Your task to perform on an android device: Open notification settings Image 0: 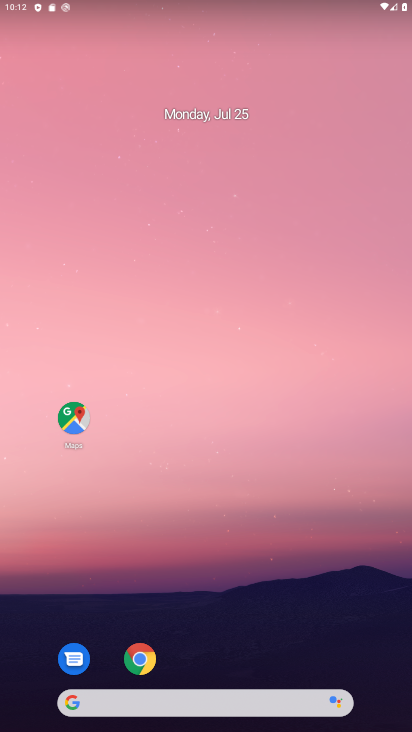
Step 0: drag from (224, 677) to (178, 71)
Your task to perform on an android device: Open notification settings Image 1: 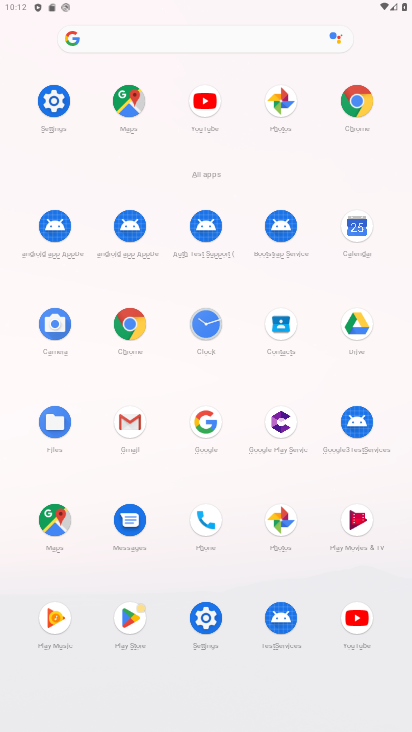
Step 1: click (220, 628)
Your task to perform on an android device: Open notification settings Image 2: 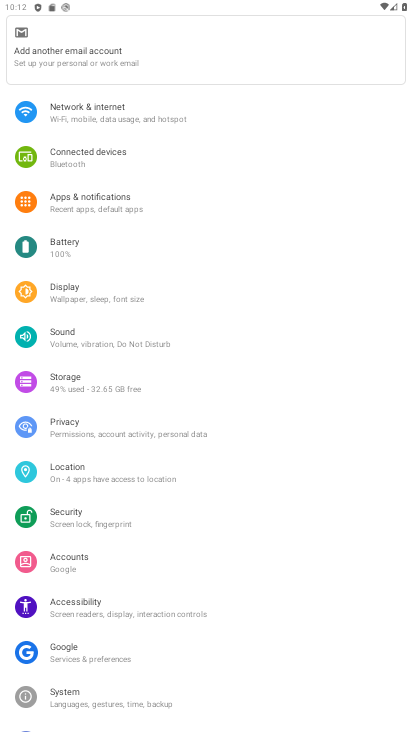
Step 2: click (61, 196)
Your task to perform on an android device: Open notification settings Image 3: 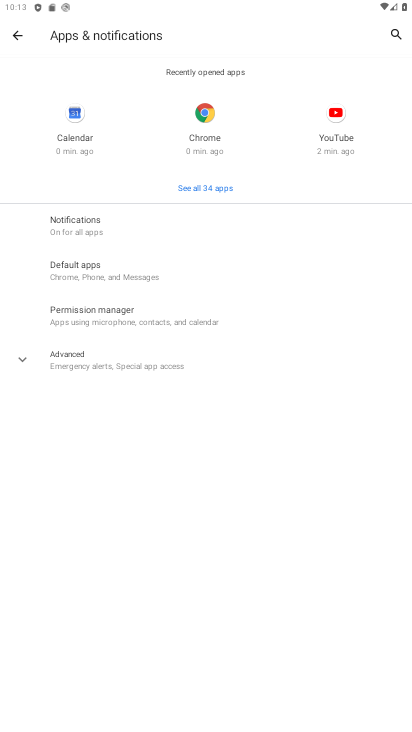
Step 3: click (75, 357)
Your task to perform on an android device: Open notification settings Image 4: 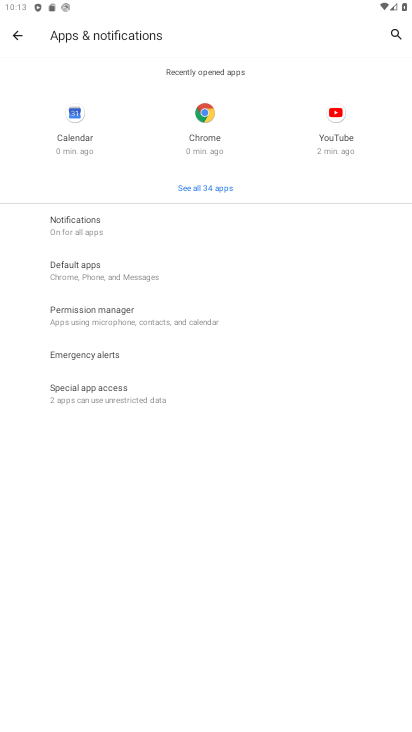
Step 4: click (73, 226)
Your task to perform on an android device: Open notification settings Image 5: 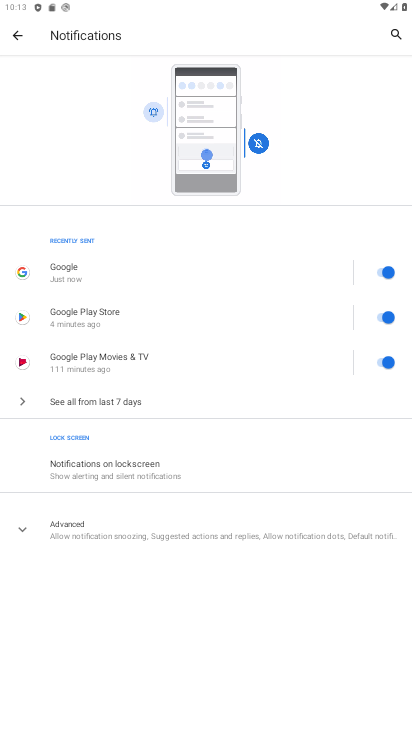
Step 5: task complete